Your task to perform on an android device: Go to battery settings Image 0: 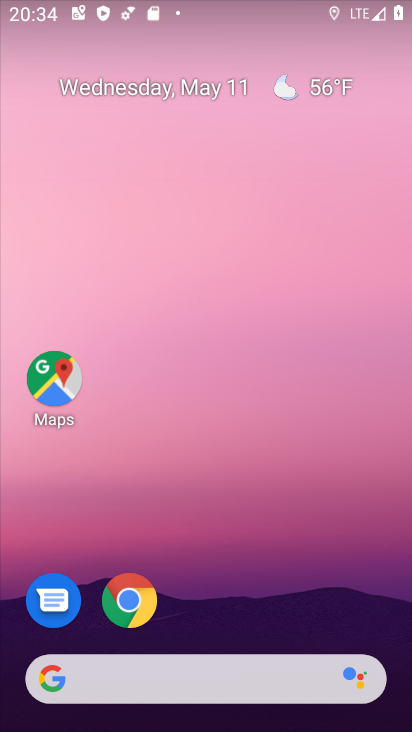
Step 0: drag from (238, 586) to (197, 89)
Your task to perform on an android device: Go to battery settings Image 1: 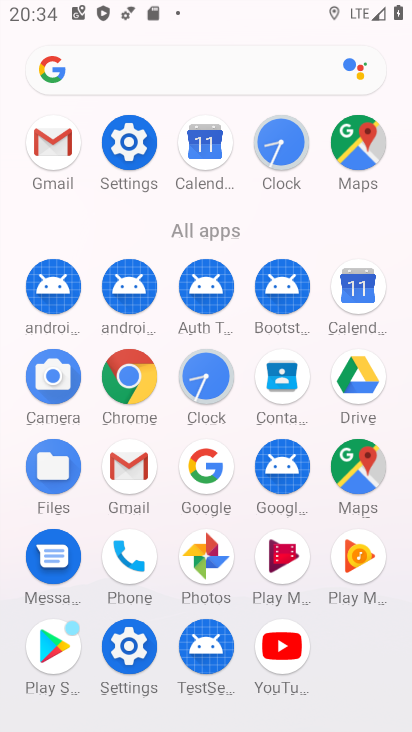
Step 1: click (131, 143)
Your task to perform on an android device: Go to battery settings Image 2: 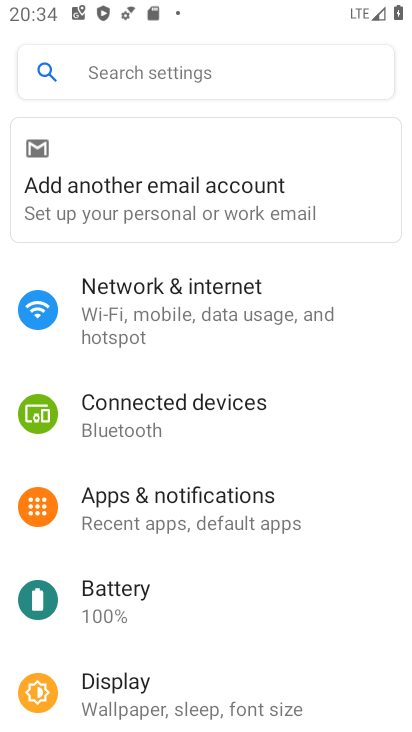
Step 2: click (127, 595)
Your task to perform on an android device: Go to battery settings Image 3: 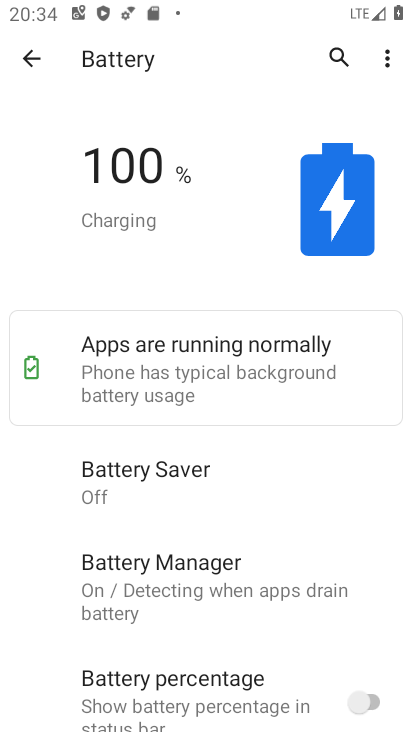
Step 3: task complete